Your task to perform on an android device: Add "sony triple a" to the cart on walmart Image 0: 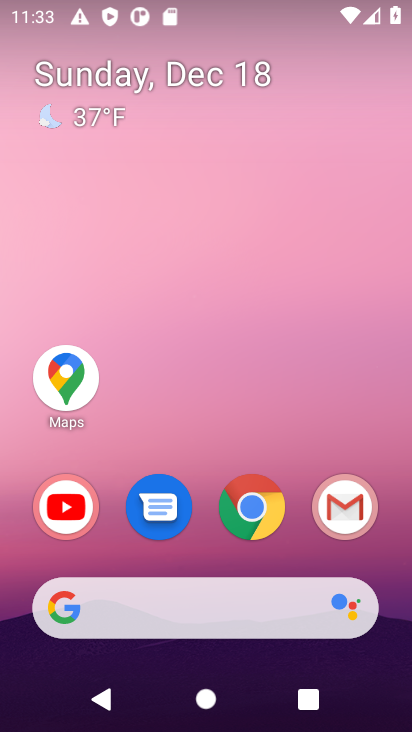
Step 0: click (254, 520)
Your task to perform on an android device: Add "sony triple a" to the cart on walmart Image 1: 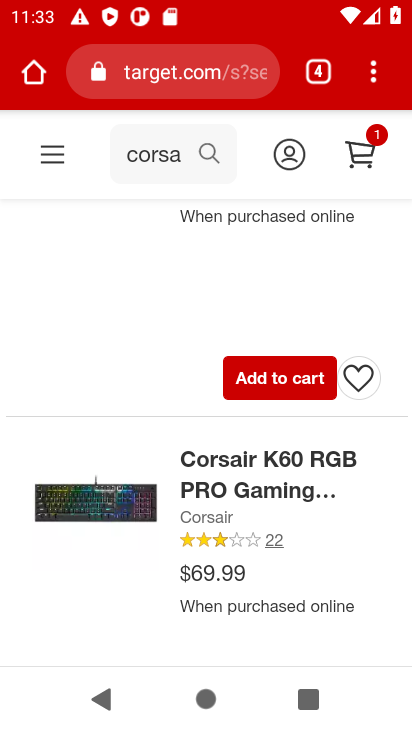
Step 1: click (168, 72)
Your task to perform on an android device: Add "sony triple a" to the cart on walmart Image 2: 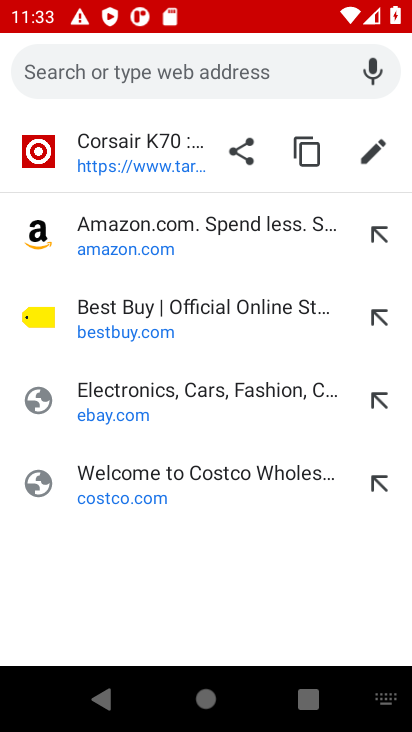
Step 2: type "walmart.com"
Your task to perform on an android device: Add "sony triple a" to the cart on walmart Image 3: 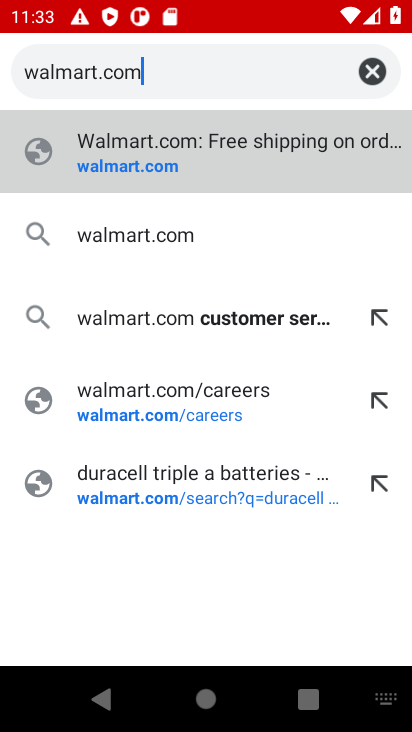
Step 3: click (125, 169)
Your task to perform on an android device: Add "sony triple a" to the cart on walmart Image 4: 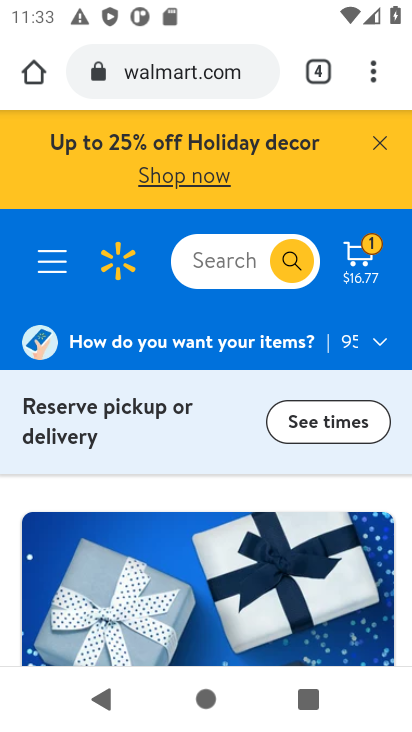
Step 4: click (218, 260)
Your task to perform on an android device: Add "sony triple a" to the cart on walmart Image 5: 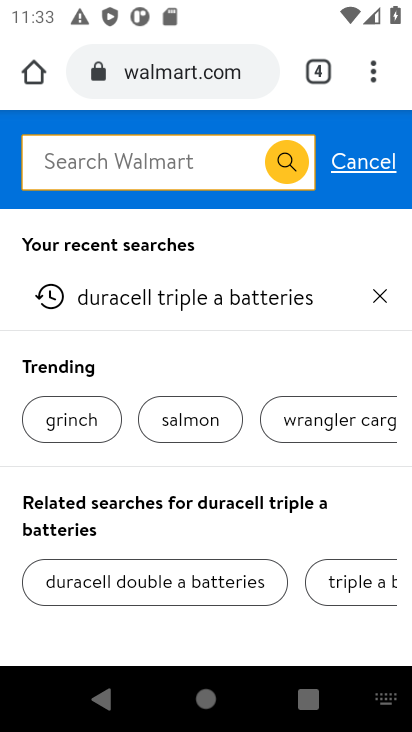
Step 5: type "sony triple a"
Your task to perform on an android device: Add "sony triple a" to the cart on walmart Image 6: 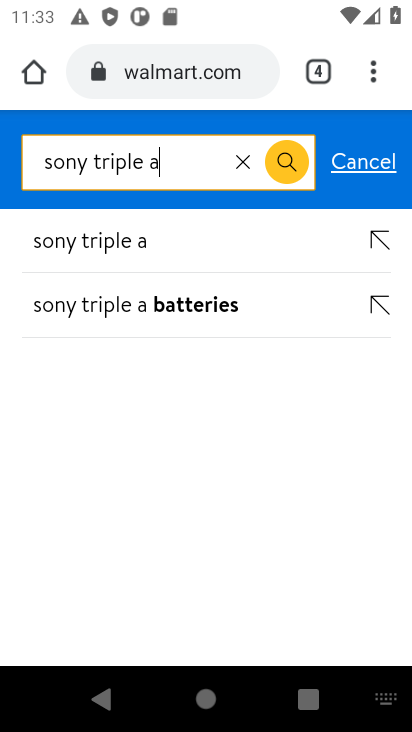
Step 6: click (72, 252)
Your task to perform on an android device: Add "sony triple a" to the cart on walmart Image 7: 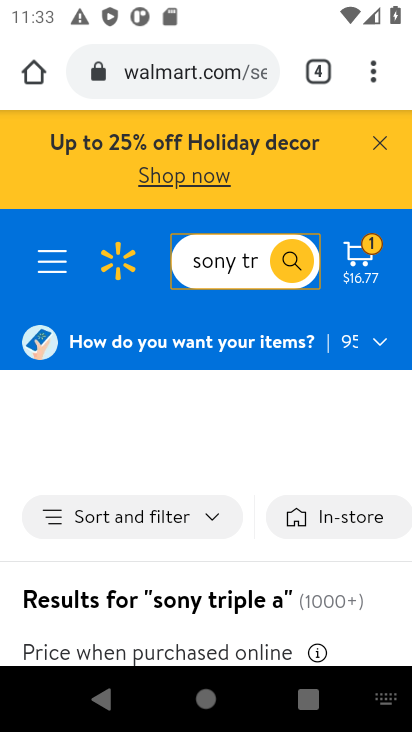
Step 7: drag from (190, 505) to (153, 197)
Your task to perform on an android device: Add "sony triple a" to the cart on walmart Image 8: 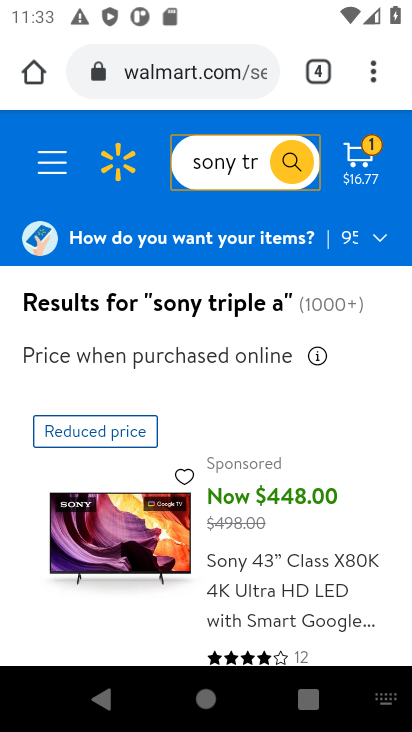
Step 8: drag from (150, 422) to (138, 214)
Your task to perform on an android device: Add "sony triple a" to the cart on walmart Image 9: 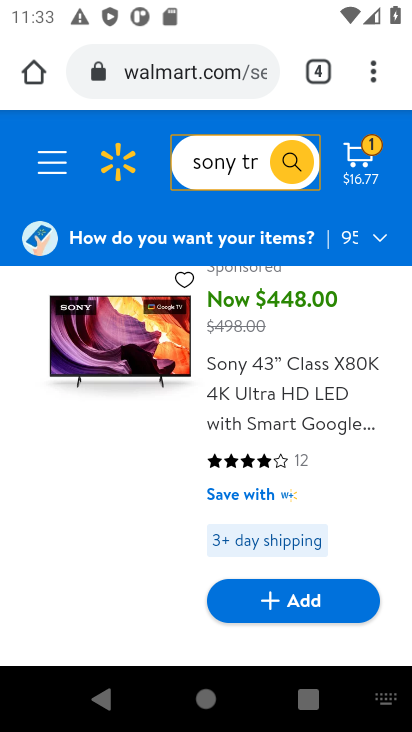
Step 9: drag from (137, 468) to (140, 202)
Your task to perform on an android device: Add "sony triple a" to the cart on walmart Image 10: 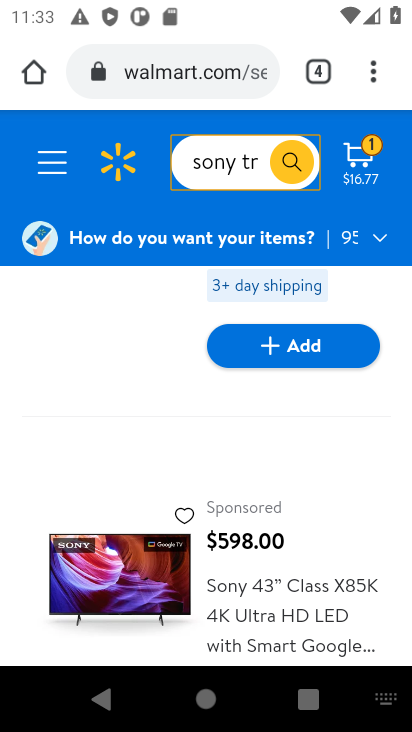
Step 10: drag from (146, 445) to (153, 220)
Your task to perform on an android device: Add "sony triple a" to the cart on walmart Image 11: 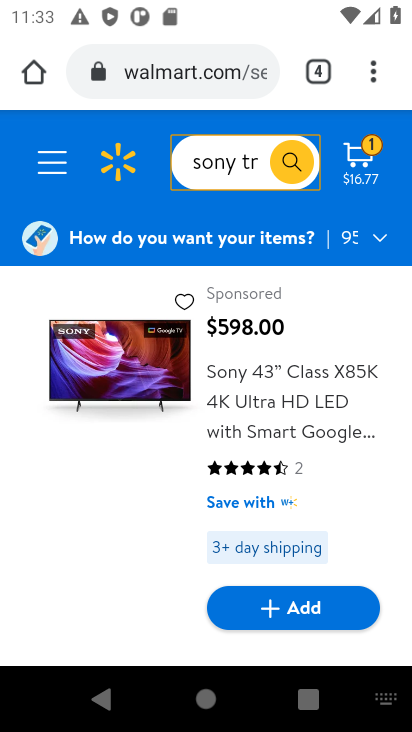
Step 11: drag from (141, 451) to (148, 175)
Your task to perform on an android device: Add "sony triple a" to the cart on walmart Image 12: 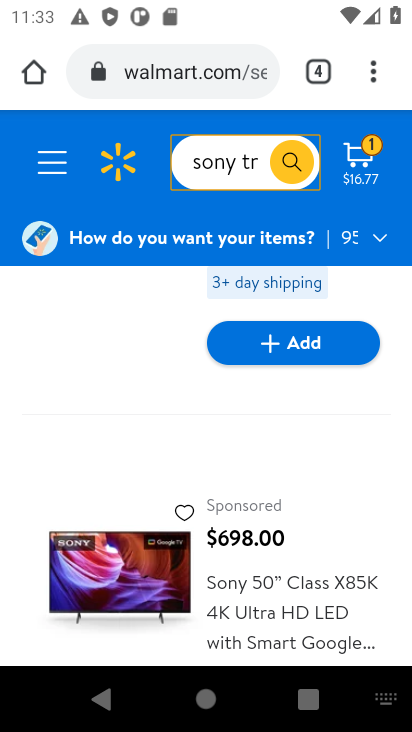
Step 12: drag from (142, 438) to (149, 177)
Your task to perform on an android device: Add "sony triple a" to the cart on walmart Image 13: 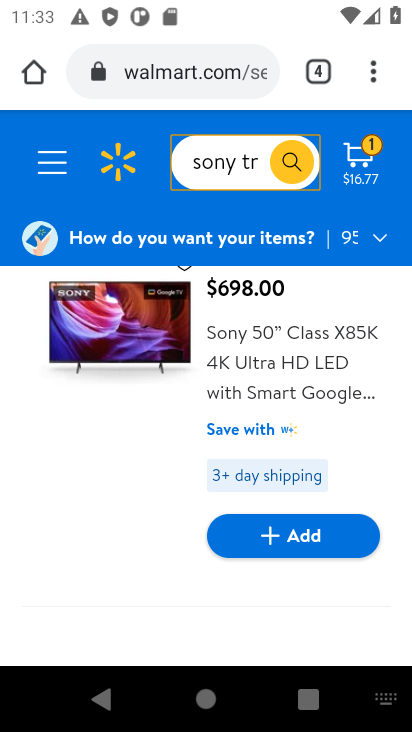
Step 13: drag from (152, 496) to (141, 231)
Your task to perform on an android device: Add "sony triple a" to the cart on walmart Image 14: 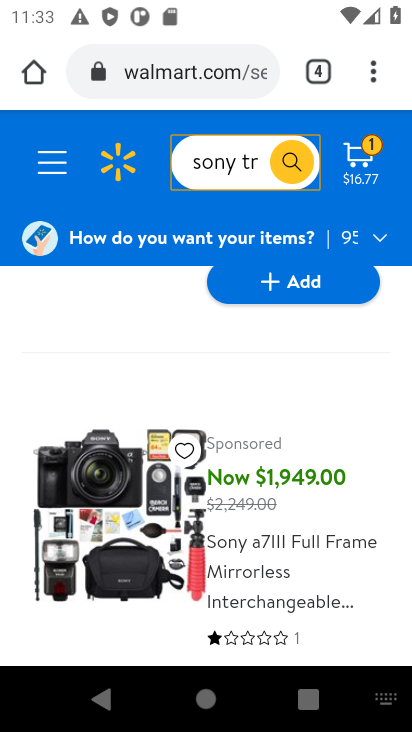
Step 14: drag from (123, 509) to (126, 216)
Your task to perform on an android device: Add "sony triple a" to the cart on walmart Image 15: 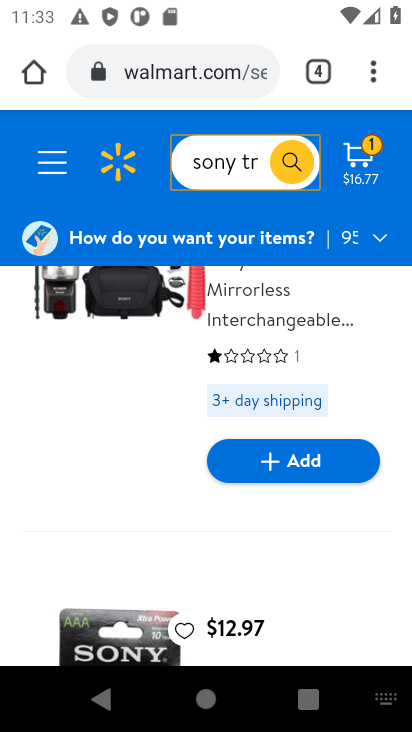
Step 15: drag from (99, 522) to (117, 313)
Your task to perform on an android device: Add "sony triple a" to the cart on walmart Image 16: 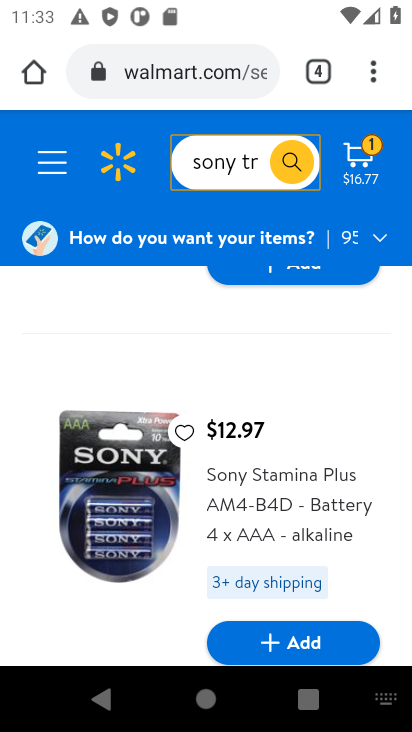
Step 16: click (279, 639)
Your task to perform on an android device: Add "sony triple a" to the cart on walmart Image 17: 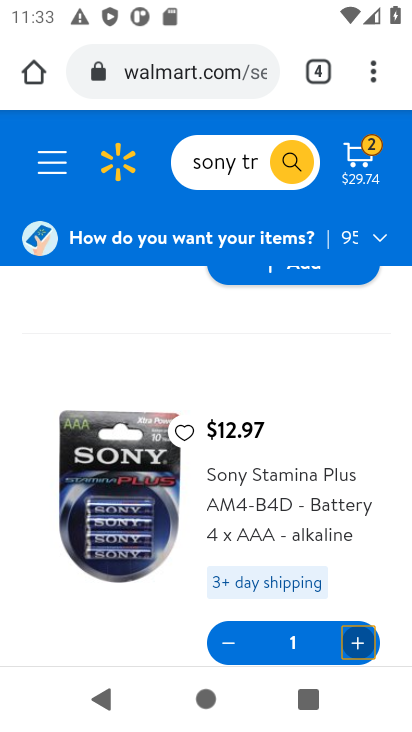
Step 17: task complete